Your task to perform on an android device: Open display settings Image 0: 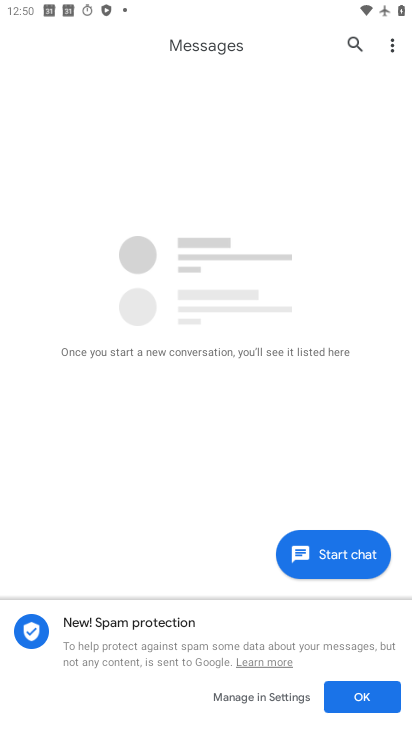
Step 0: press home button
Your task to perform on an android device: Open display settings Image 1: 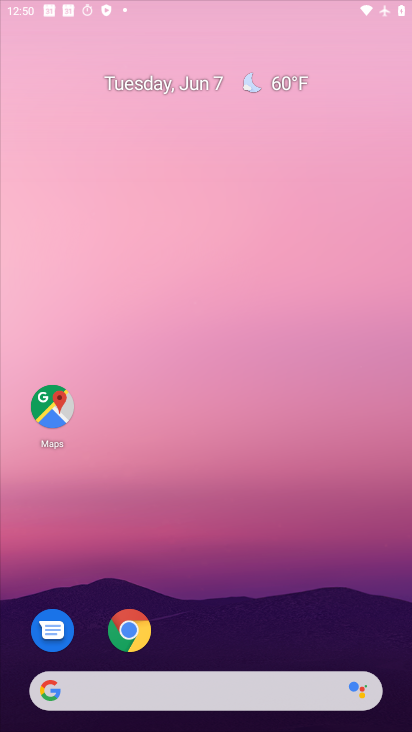
Step 1: drag from (341, 609) to (220, 41)
Your task to perform on an android device: Open display settings Image 2: 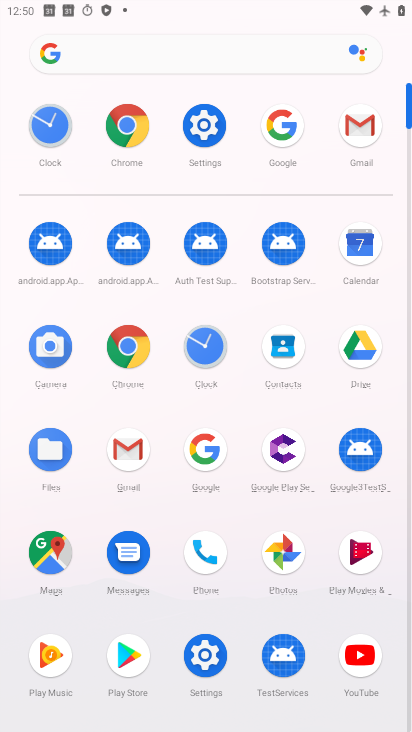
Step 2: click (206, 660)
Your task to perform on an android device: Open display settings Image 3: 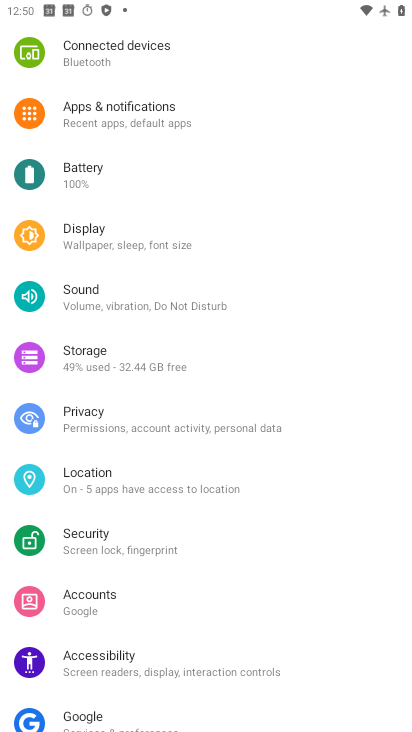
Step 3: click (114, 237)
Your task to perform on an android device: Open display settings Image 4: 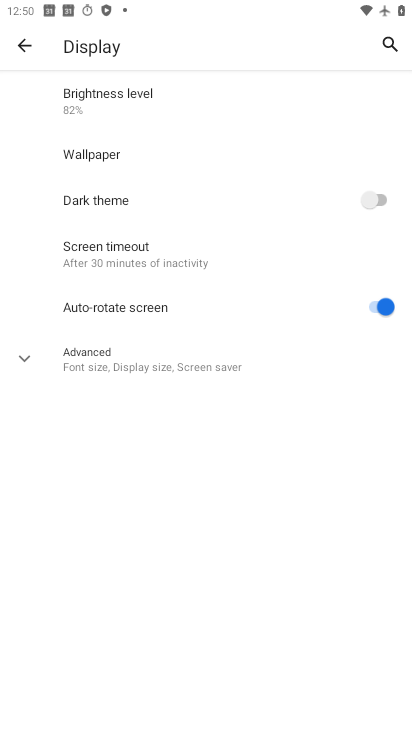
Step 4: task complete